Your task to perform on an android device: Is it going to rain today? Image 0: 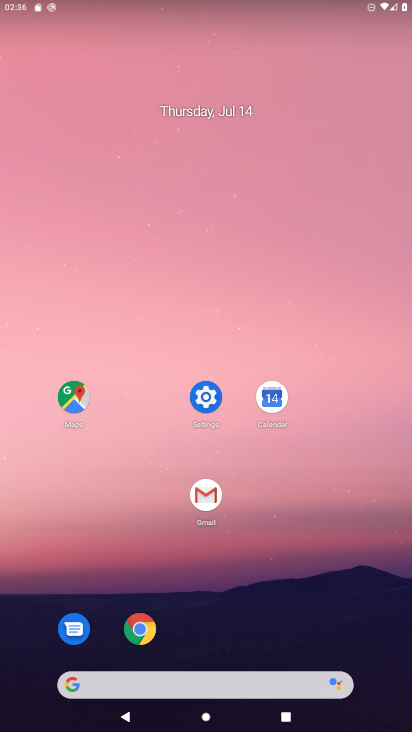
Step 0: drag from (6, 250) to (406, 230)
Your task to perform on an android device: Is it going to rain today? Image 1: 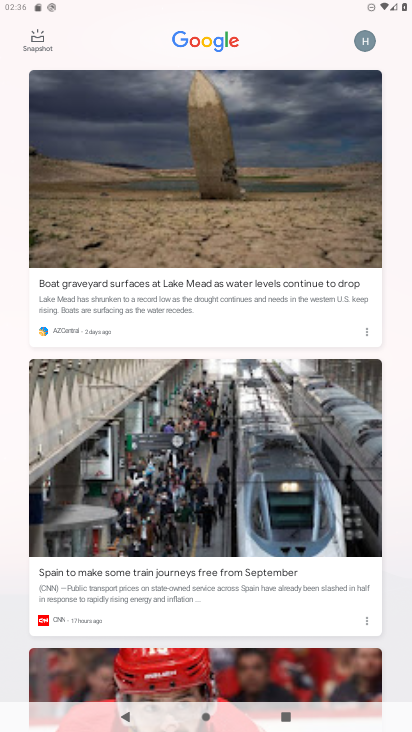
Step 1: task complete